Your task to perform on an android device: see tabs open on other devices in the chrome app Image 0: 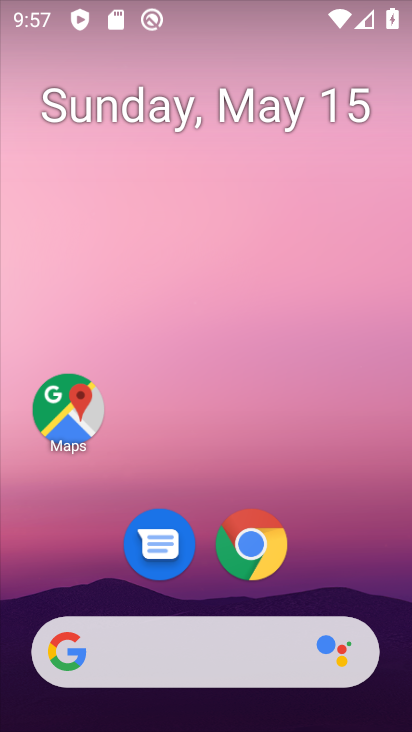
Step 0: click (257, 555)
Your task to perform on an android device: see tabs open on other devices in the chrome app Image 1: 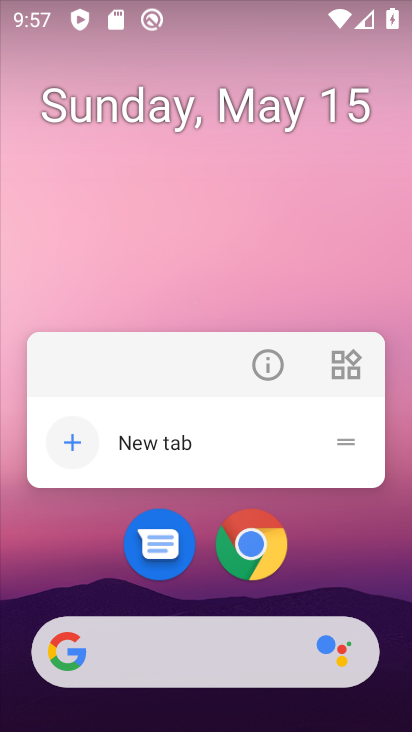
Step 1: click (259, 549)
Your task to perform on an android device: see tabs open on other devices in the chrome app Image 2: 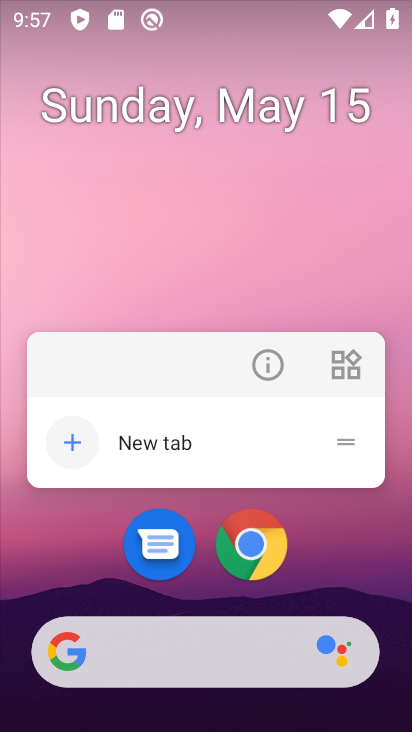
Step 2: click (259, 549)
Your task to perform on an android device: see tabs open on other devices in the chrome app Image 3: 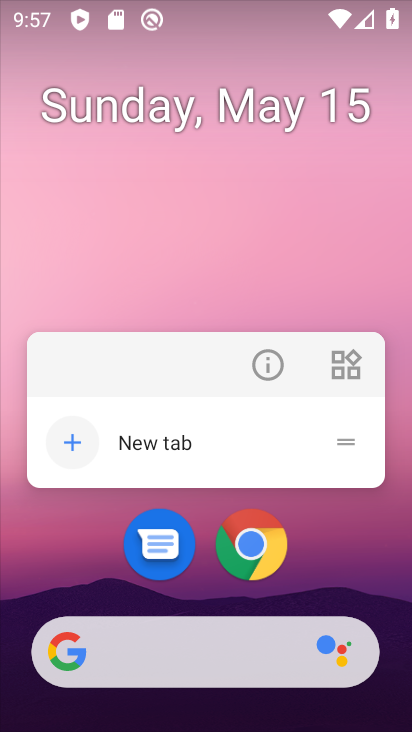
Step 3: click (256, 536)
Your task to perform on an android device: see tabs open on other devices in the chrome app Image 4: 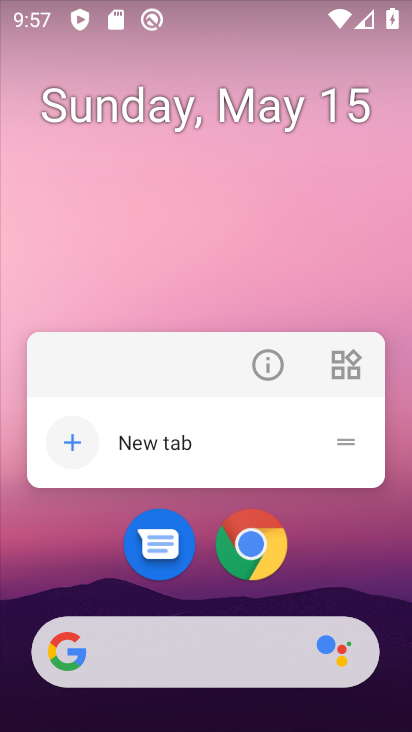
Step 4: click (255, 559)
Your task to perform on an android device: see tabs open on other devices in the chrome app Image 5: 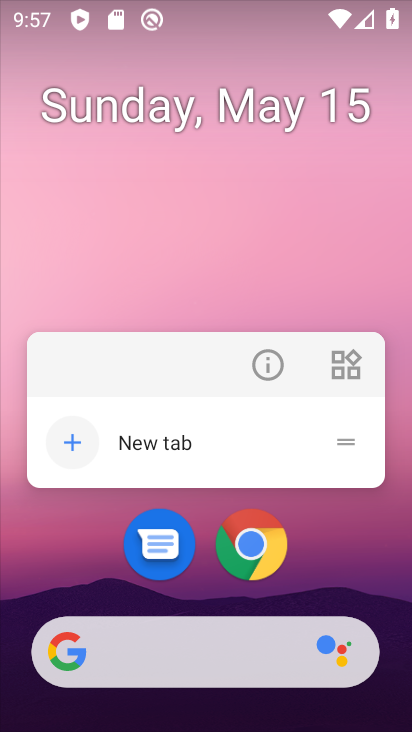
Step 5: click (249, 560)
Your task to perform on an android device: see tabs open on other devices in the chrome app Image 6: 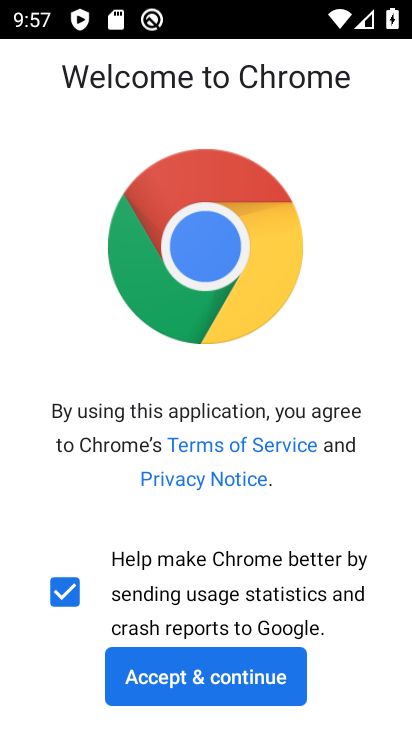
Step 6: click (242, 684)
Your task to perform on an android device: see tabs open on other devices in the chrome app Image 7: 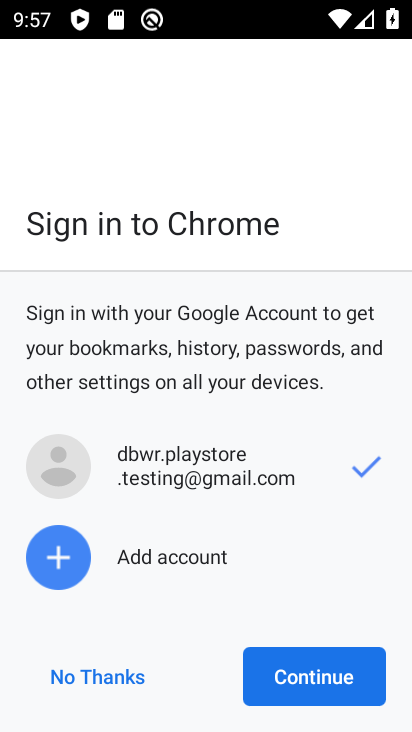
Step 7: click (242, 675)
Your task to perform on an android device: see tabs open on other devices in the chrome app Image 8: 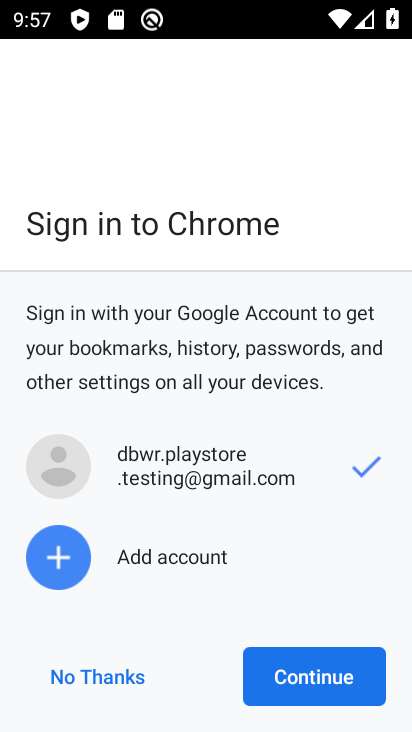
Step 8: click (296, 681)
Your task to perform on an android device: see tabs open on other devices in the chrome app Image 9: 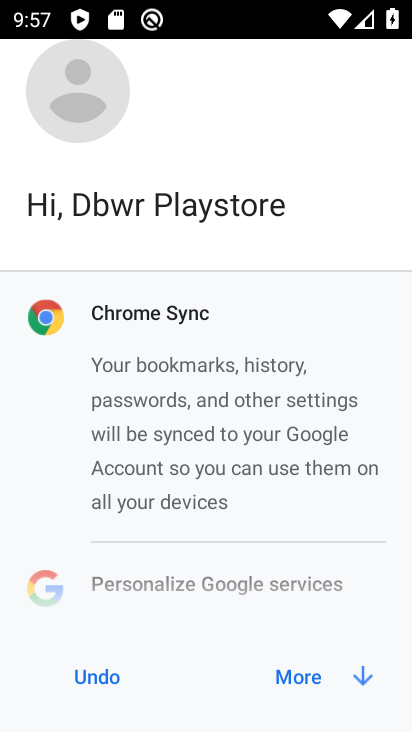
Step 9: click (295, 680)
Your task to perform on an android device: see tabs open on other devices in the chrome app Image 10: 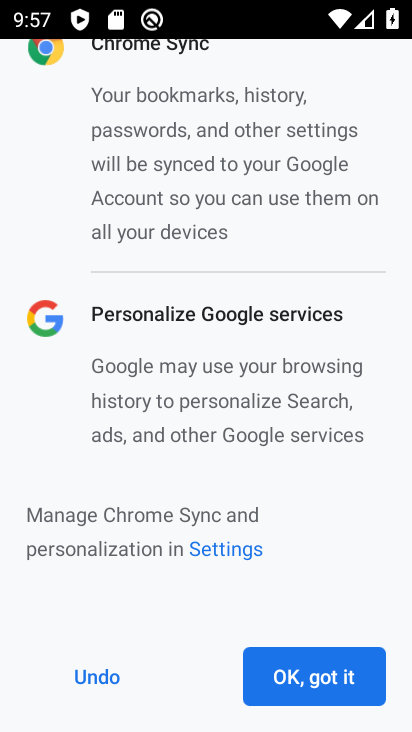
Step 10: click (294, 677)
Your task to perform on an android device: see tabs open on other devices in the chrome app Image 11: 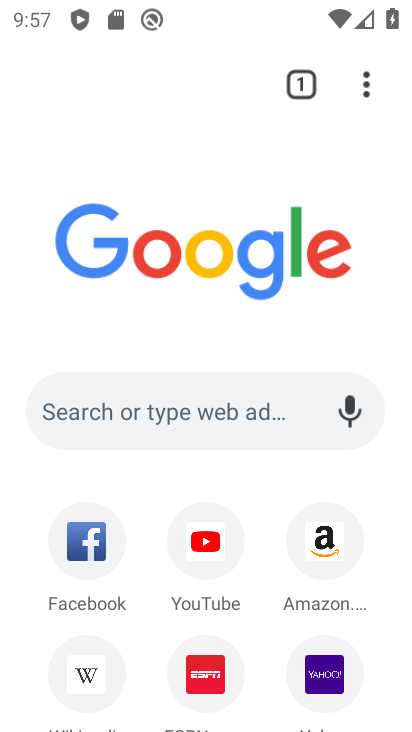
Step 11: drag from (356, 96) to (286, 386)
Your task to perform on an android device: see tabs open on other devices in the chrome app Image 12: 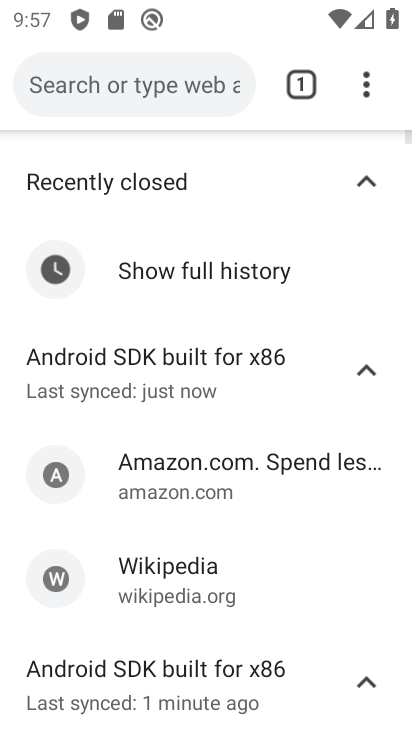
Step 12: drag from (234, 655) to (350, 279)
Your task to perform on an android device: see tabs open on other devices in the chrome app Image 13: 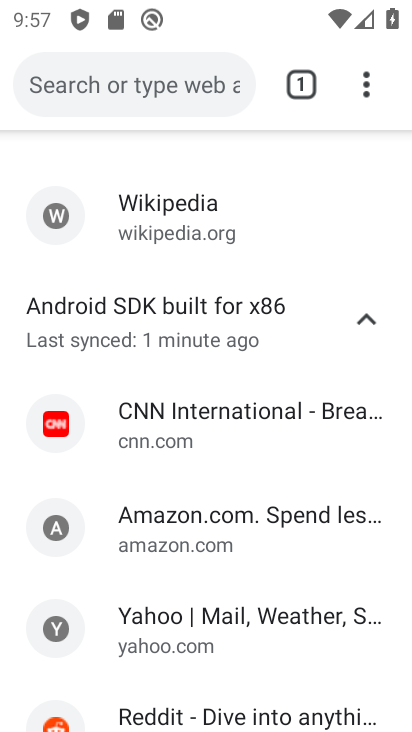
Step 13: drag from (211, 630) to (313, 218)
Your task to perform on an android device: see tabs open on other devices in the chrome app Image 14: 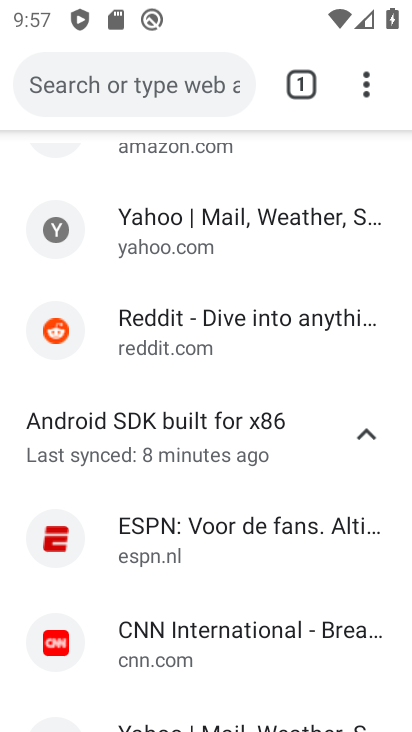
Step 14: drag from (303, 225) to (284, 665)
Your task to perform on an android device: see tabs open on other devices in the chrome app Image 15: 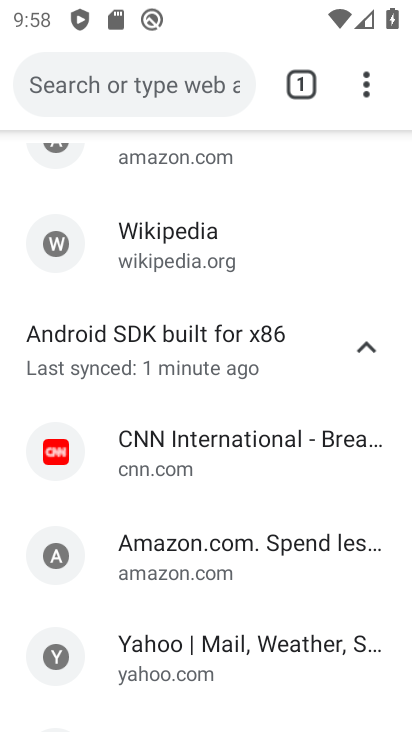
Step 15: drag from (272, 304) to (247, 646)
Your task to perform on an android device: see tabs open on other devices in the chrome app Image 16: 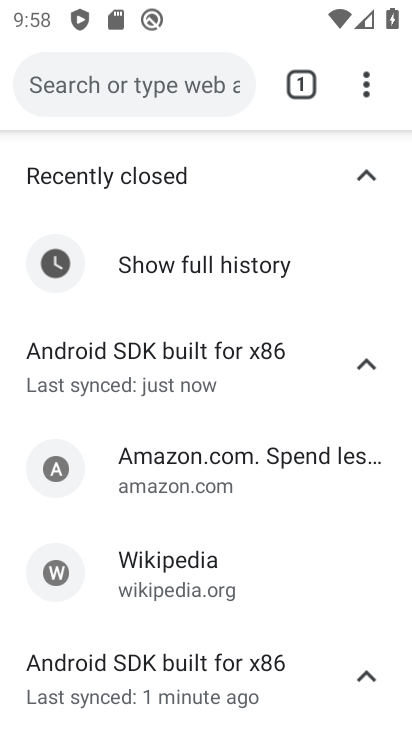
Step 16: click (364, 170)
Your task to perform on an android device: see tabs open on other devices in the chrome app Image 17: 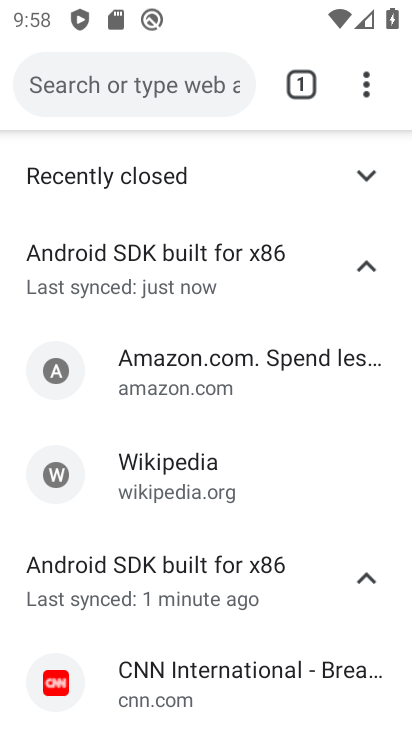
Step 17: click (369, 274)
Your task to perform on an android device: see tabs open on other devices in the chrome app Image 18: 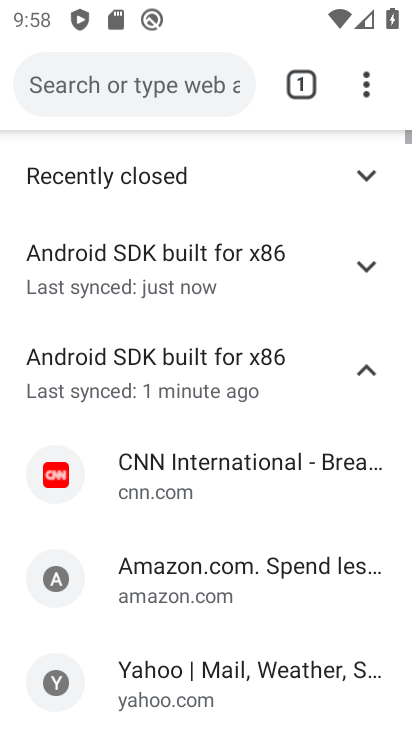
Step 18: click (368, 362)
Your task to perform on an android device: see tabs open on other devices in the chrome app Image 19: 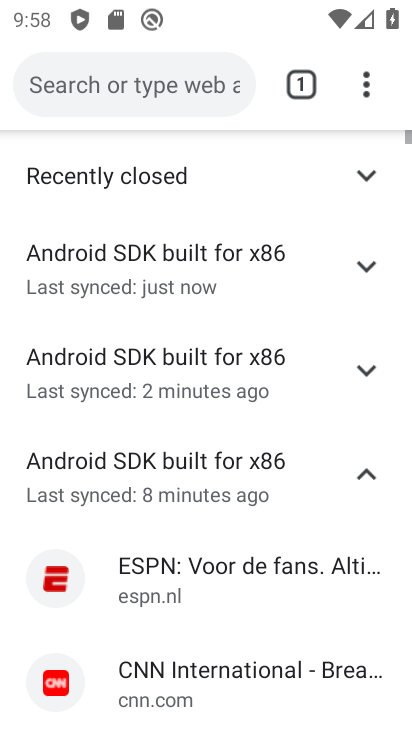
Step 19: click (379, 474)
Your task to perform on an android device: see tabs open on other devices in the chrome app Image 20: 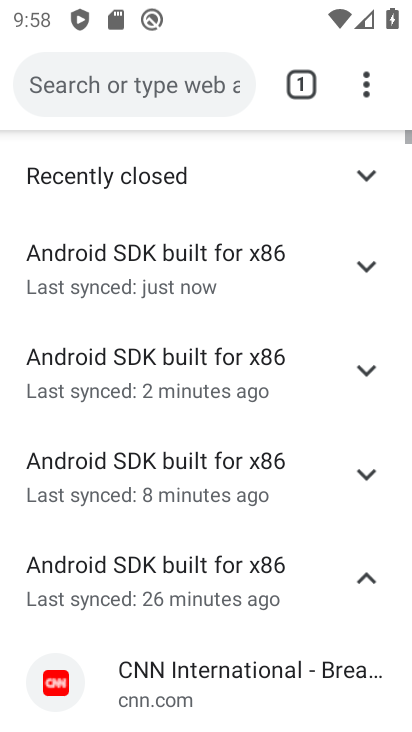
Step 20: task complete